Your task to perform on an android device: Go to internet settings Image 0: 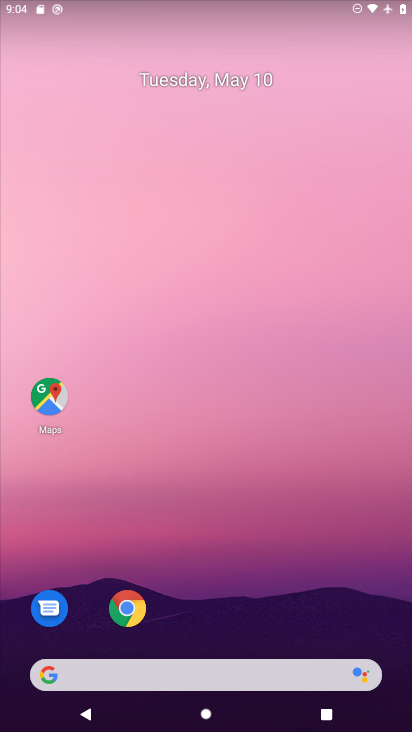
Step 0: drag from (268, 352) to (268, 194)
Your task to perform on an android device: Go to internet settings Image 1: 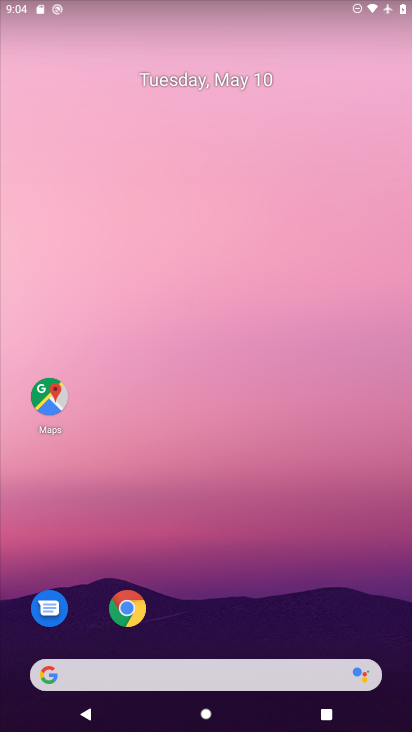
Step 1: drag from (233, 586) to (279, 140)
Your task to perform on an android device: Go to internet settings Image 2: 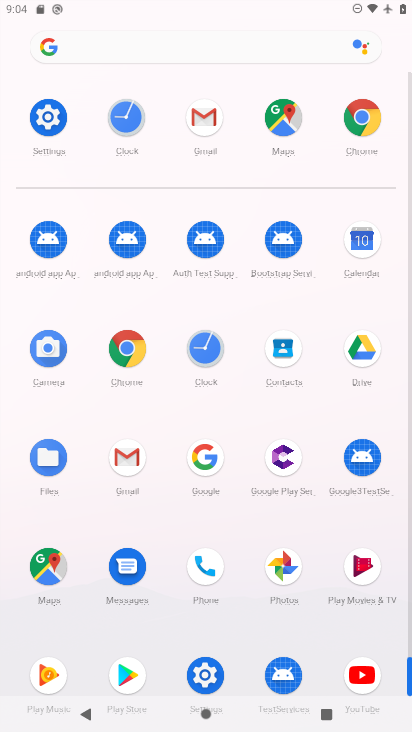
Step 2: click (46, 118)
Your task to perform on an android device: Go to internet settings Image 3: 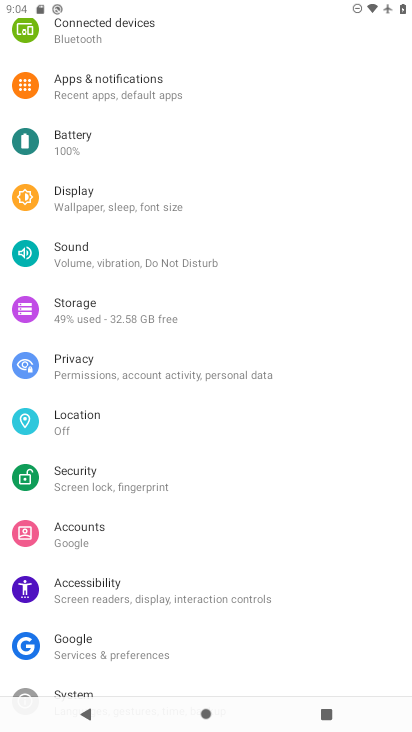
Step 3: drag from (148, 89) to (137, 548)
Your task to perform on an android device: Go to internet settings Image 4: 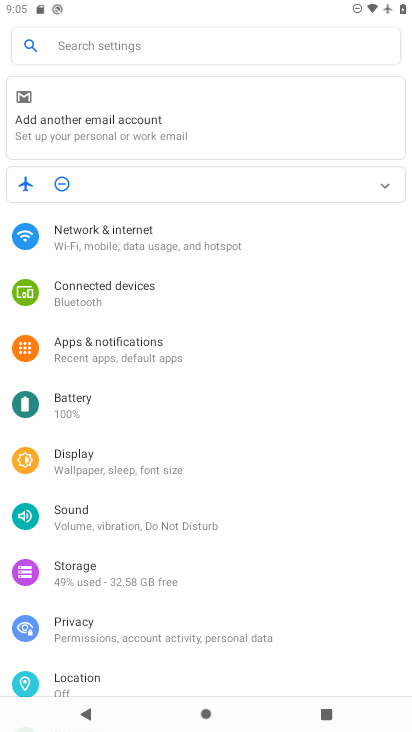
Step 4: click (147, 237)
Your task to perform on an android device: Go to internet settings Image 5: 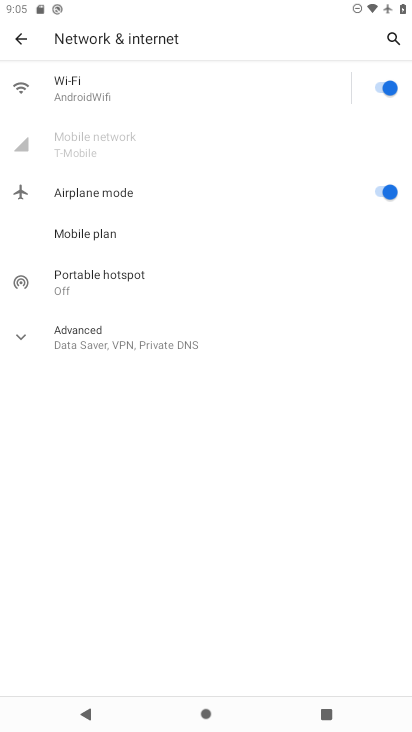
Step 5: task complete